Your task to perform on an android device: delete a single message in the gmail app Image 0: 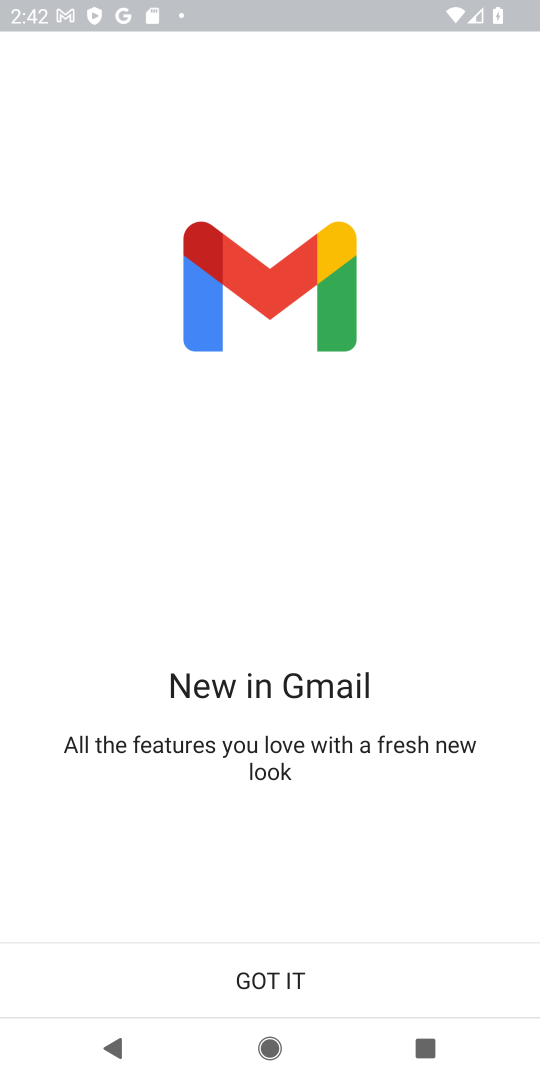
Step 0: press back button
Your task to perform on an android device: delete a single message in the gmail app Image 1: 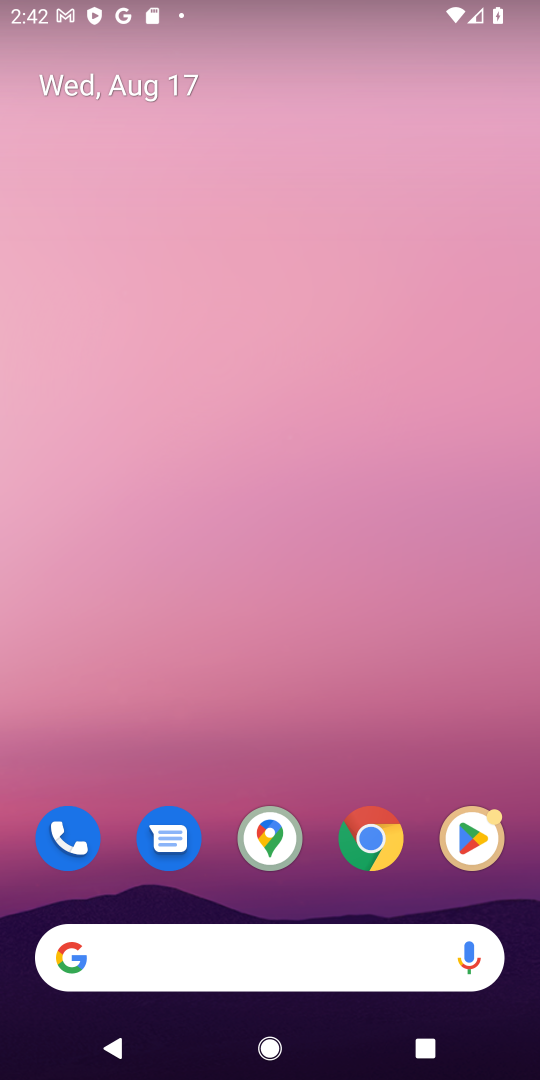
Step 1: drag from (264, 897) to (417, 52)
Your task to perform on an android device: delete a single message in the gmail app Image 2: 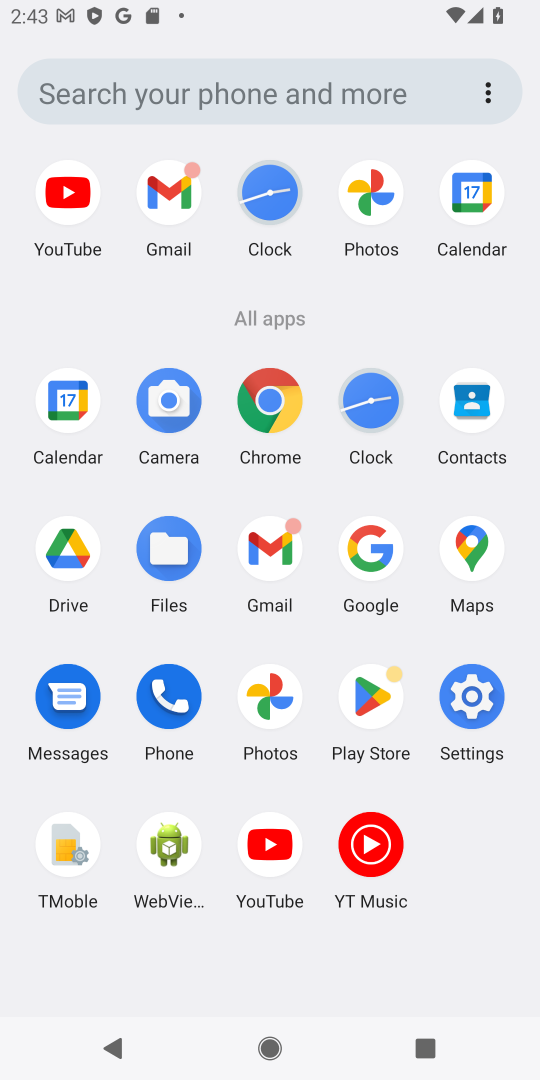
Step 2: click (181, 205)
Your task to perform on an android device: delete a single message in the gmail app Image 3: 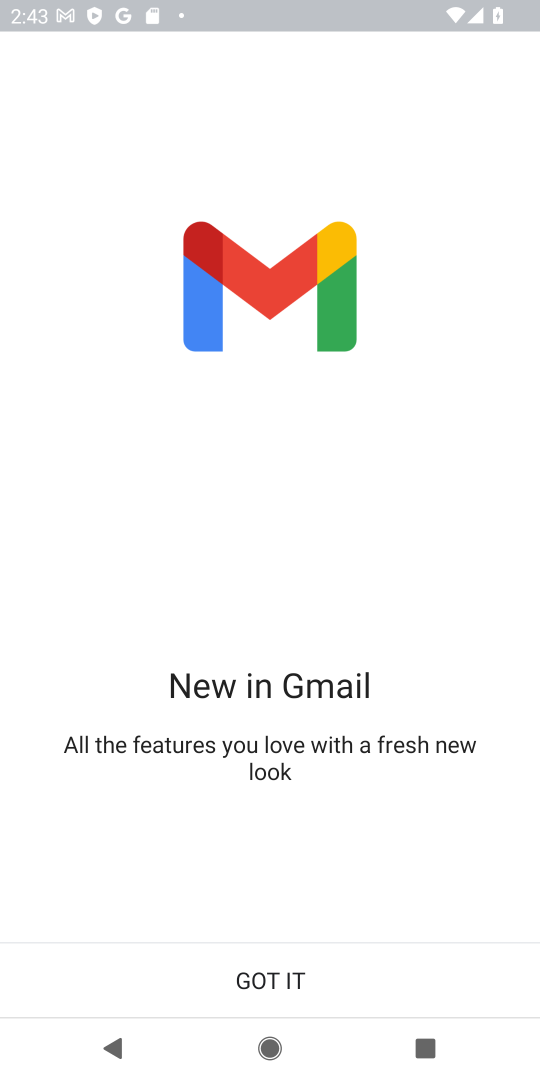
Step 3: click (247, 981)
Your task to perform on an android device: delete a single message in the gmail app Image 4: 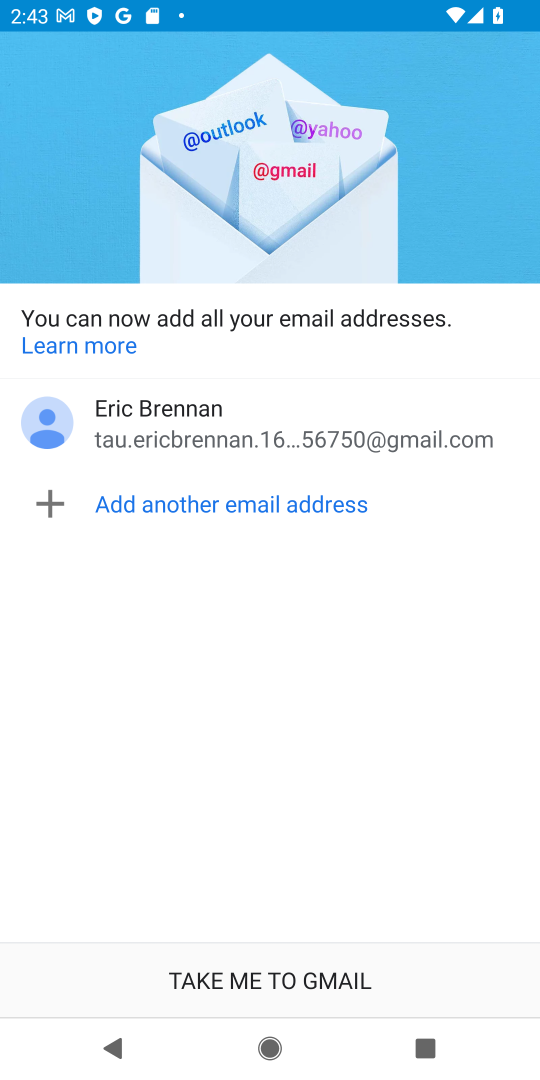
Step 4: click (249, 980)
Your task to perform on an android device: delete a single message in the gmail app Image 5: 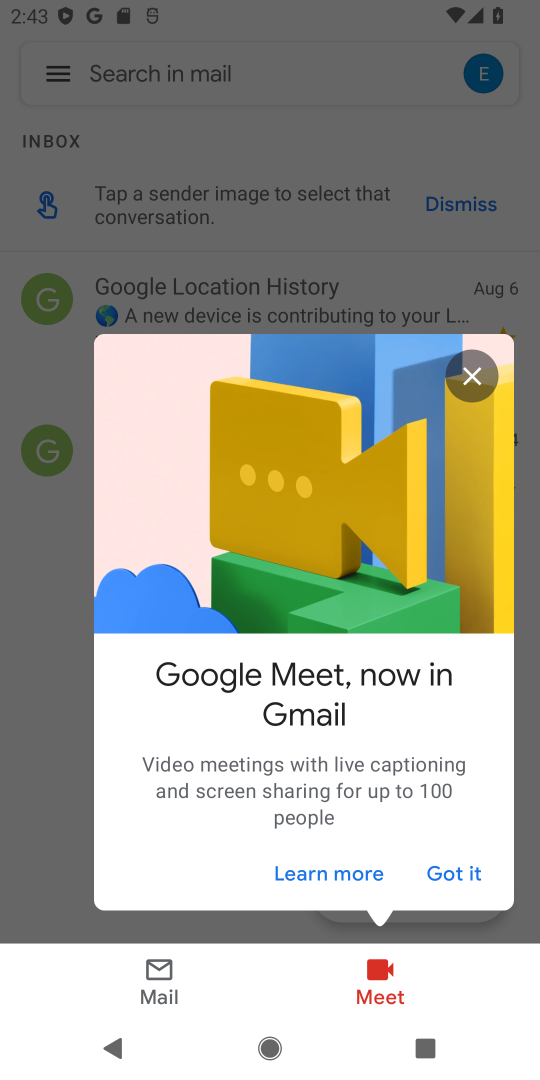
Step 5: click (462, 875)
Your task to perform on an android device: delete a single message in the gmail app Image 6: 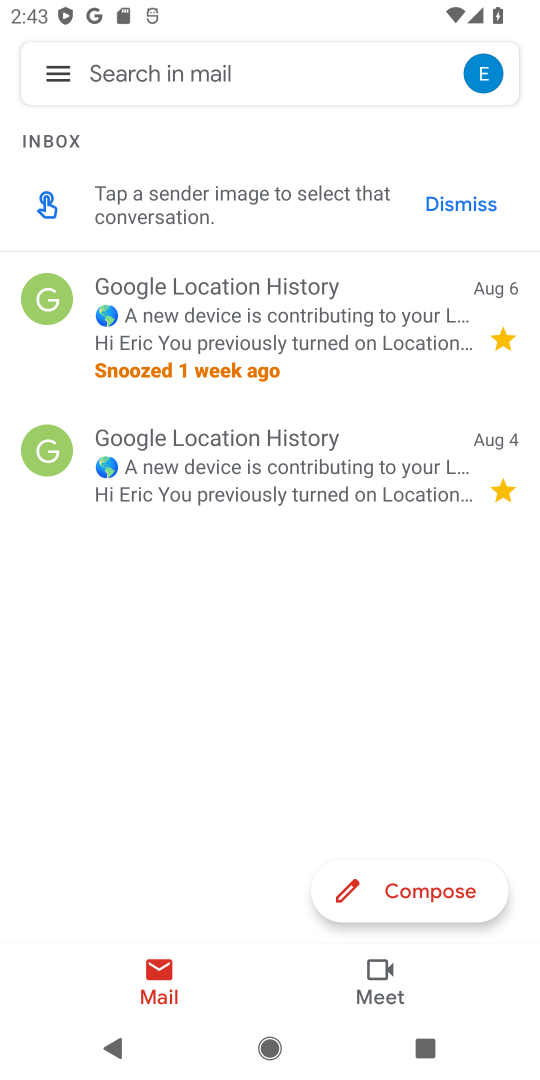
Step 6: click (309, 309)
Your task to perform on an android device: delete a single message in the gmail app Image 7: 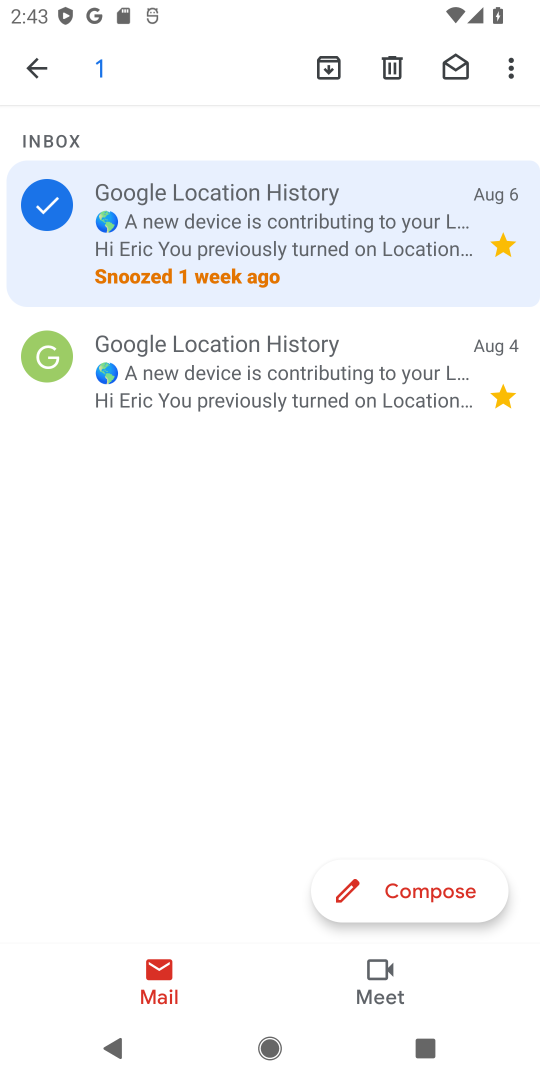
Step 7: click (393, 73)
Your task to perform on an android device: delete a single message in the gmail app Image 8: 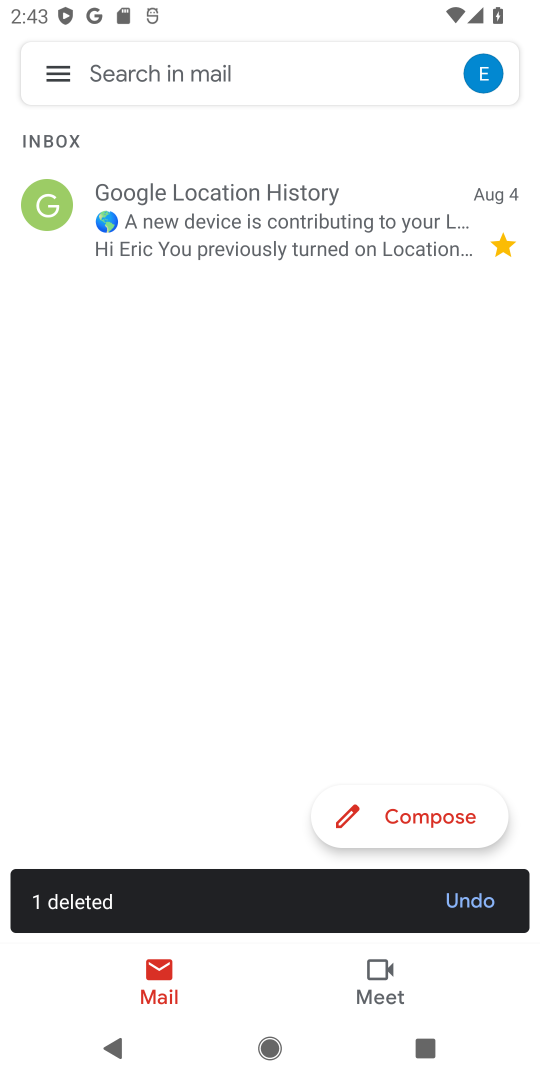
Step 8: task complete